Your task to perform on an android device: turn off javascript in the chrome app Image 0: 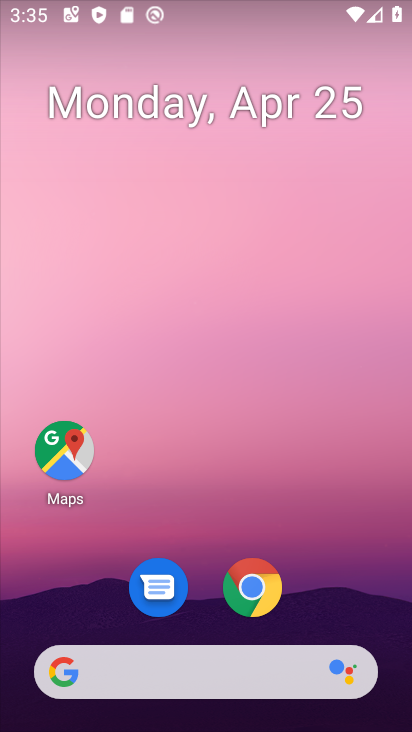
Step 0: click (251, 587)
Your task to perform on an android device: turn off javascript in the chrome app Image 1: 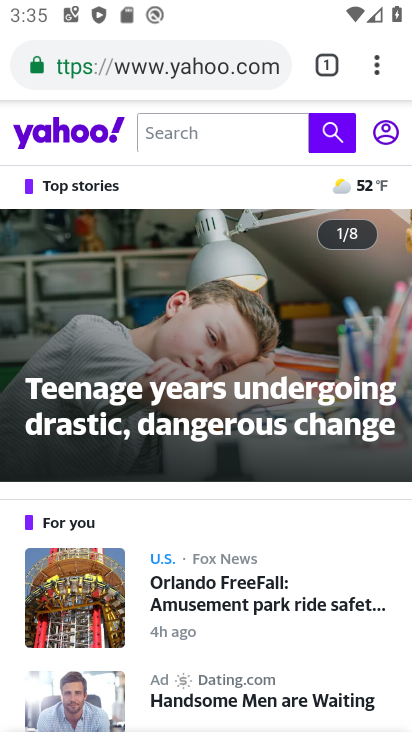
Step 1: click (375, 67)
Your task to perform on an android device: turn off javascript in the chrome app Image 2: 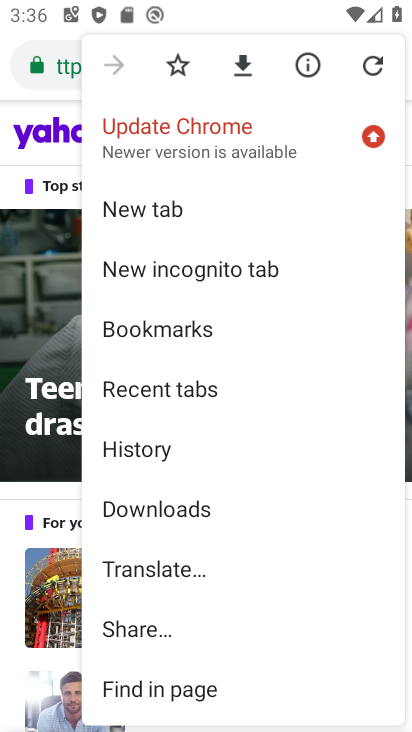
Step 2: drag from (188, 549) to (209, 168)
Your task to perform on an android device: turn off javascript in the chrome app Image 3: 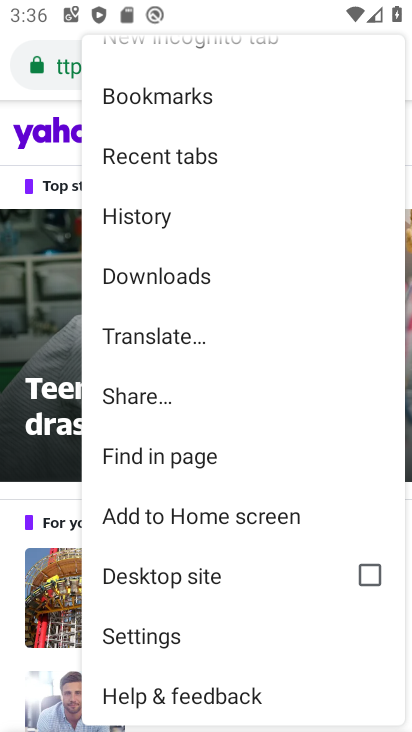
Step 3: click (161, 630)
Your task to perform on an android device: turn off javascript in the chrome app Image 4: 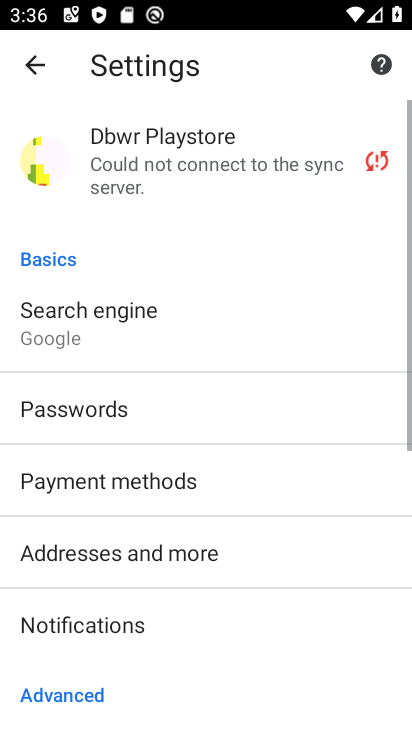
Step 4: drag from (170, 598) to (235, 156)
Your task to perform on an android device: turn off javascript in the chrome app Image 5: 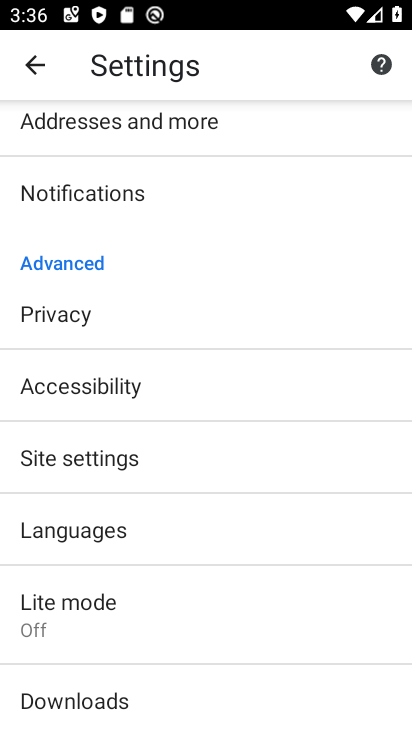
Step 5: click (108, 455)
Your task to perform on an android device: turn off javascript in the chrome app Image 6: 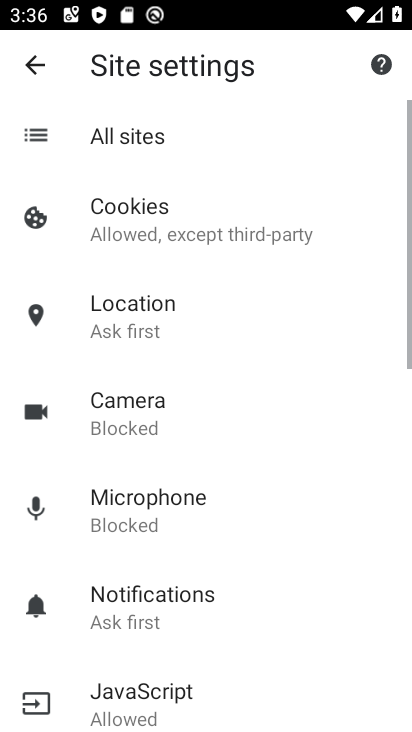
Step 6: drag from (254, 622) to (254, 360)
Your task to perform on an android device: turn off javascript in the chrome app Image 7: 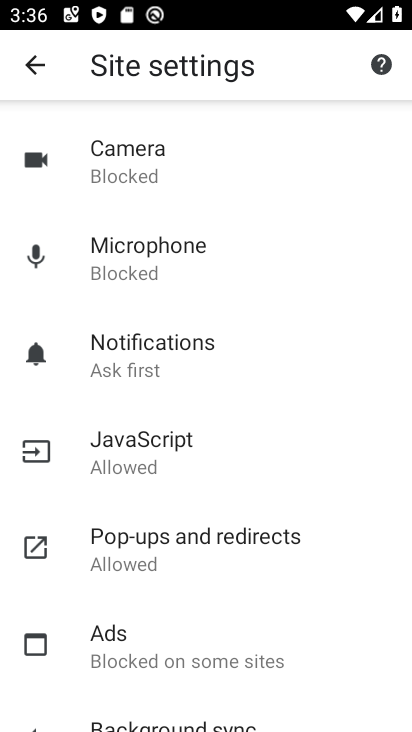
Step 7: click (152, 446)
Your task to perform on an android device: turn off javascript in the chrome app Image 8: 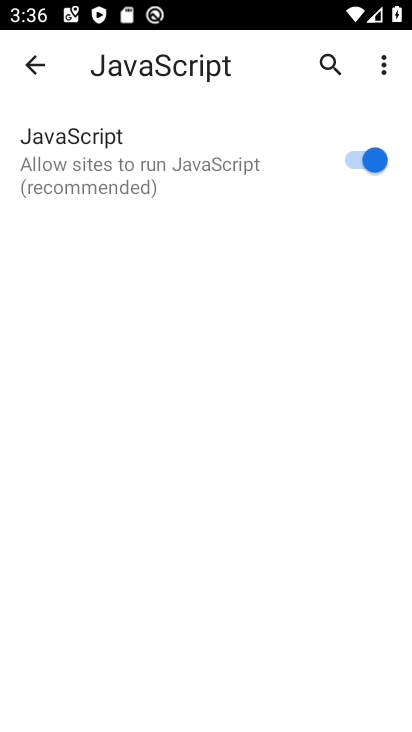
Step 8: click (354, 157)
Your task to perform on an android device: turn off javascript in the chrome app Image 9: 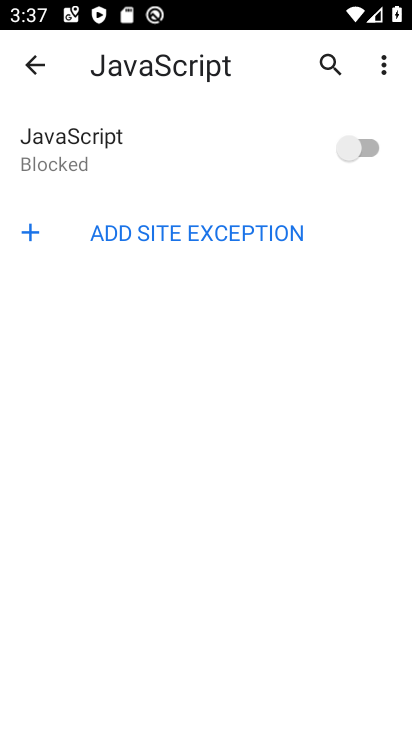
Step 9: task complete